Your task to perform on an android device: read, delete, or share a saved page in the chrome app Image 0: 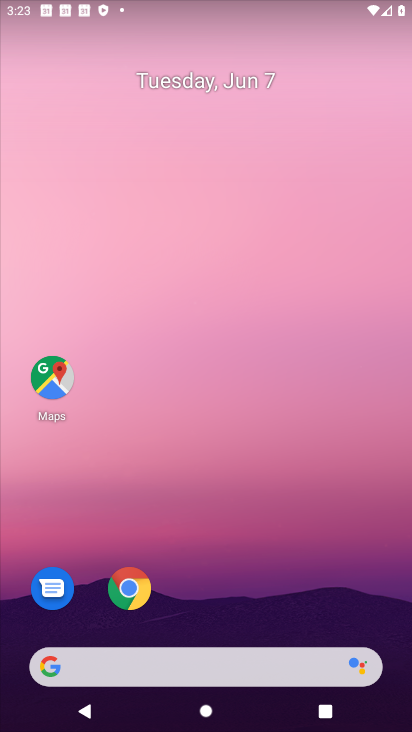
Step 0: task complete